Your task to perform on an android device: Go to Google Image 0: 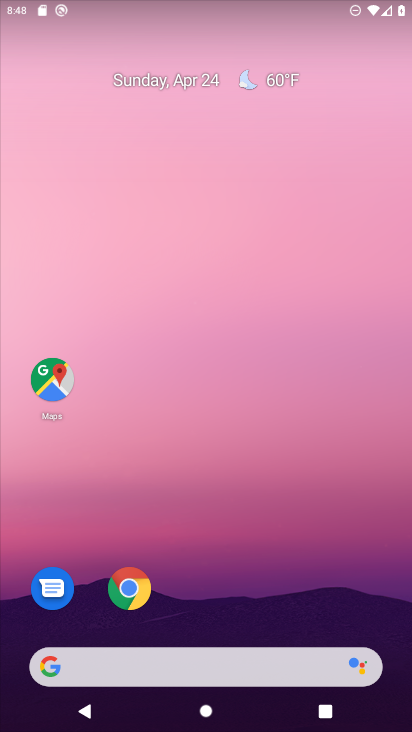
Step 0: drag from (218, 539) to (207, 92)
Your task to perform on an android device: Go to Google Image 1: 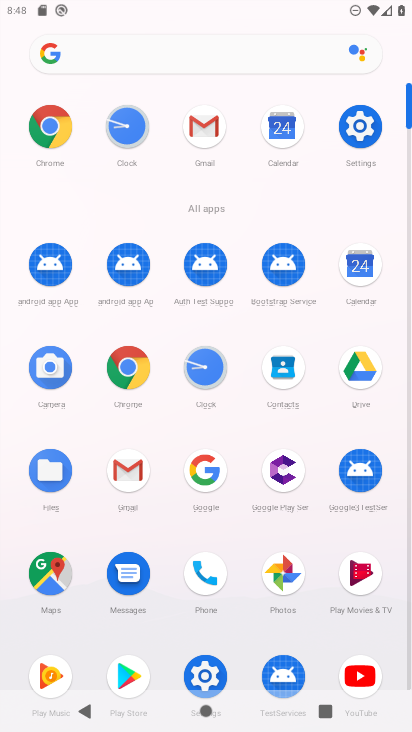
Step 1: click (207, 472)
Your task to perform on an android device: Go to Google Image 2: 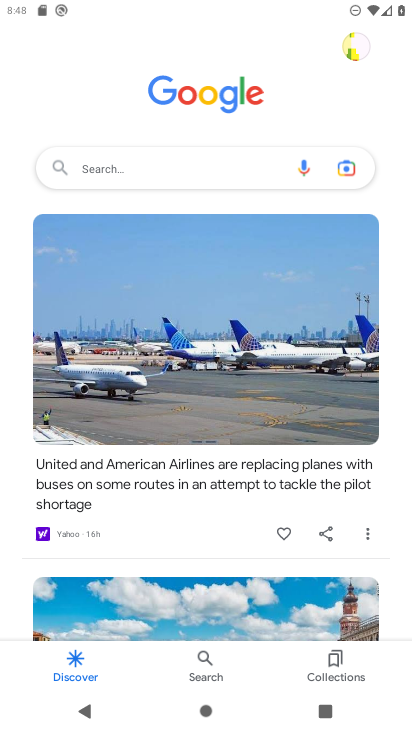
Step 2: task complete